Your task to perform on an android device: Is it going to rain today? Image 0: 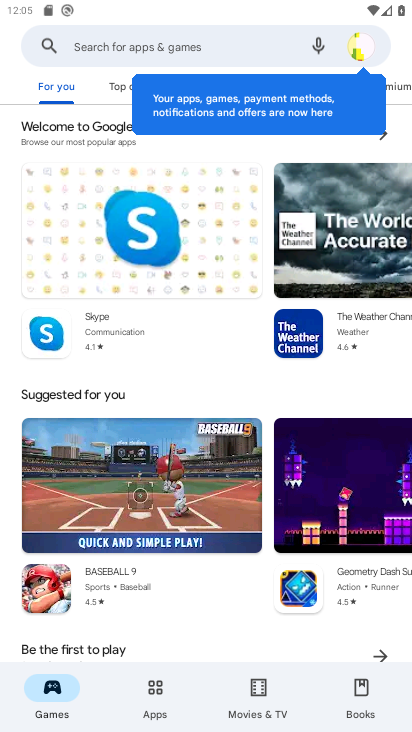
Step 0: press home button
Your task to perform on an android device: Is it going to rain today? Image 1: 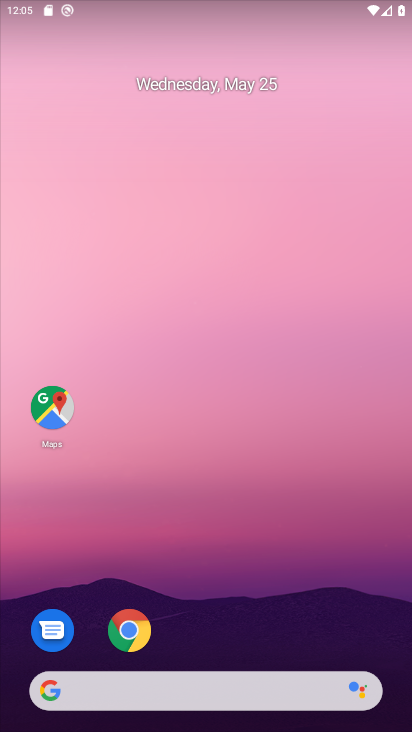
Step 1: drag from (191, 638) to (221, 195)
Your task to perform on an android device: Is it going to rain today? Image 2: 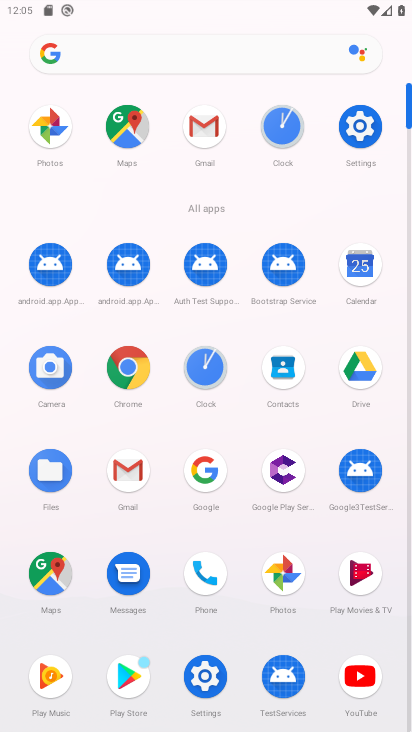
Step 2: click (200, 477)
Your task to perform on an android device: Is it going to rain today? Image 3: 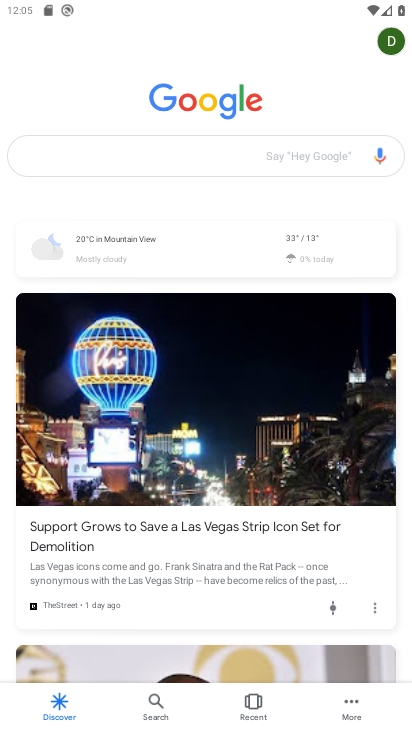
Step 3: click (176, 140)
Your task to perform on an android device: Is it going to rain today? Image 4: 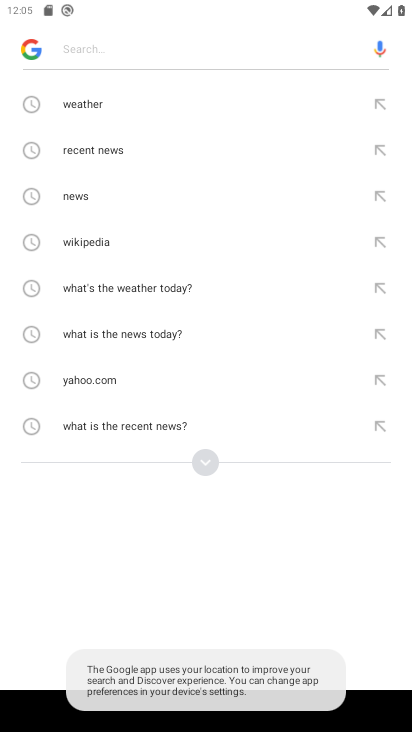
Step 4: press back button
Your task to perform on an android device: Is it going to rain today? Image 5: 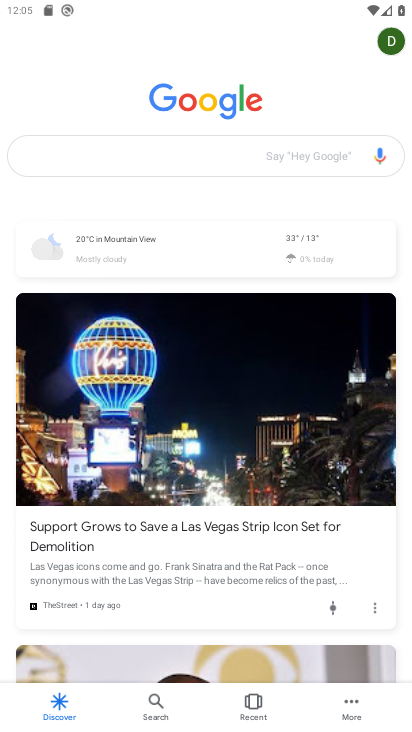
Step 5: click (118, 248)
Your task to perform on an android device: Is it going to rain today? Image 6: 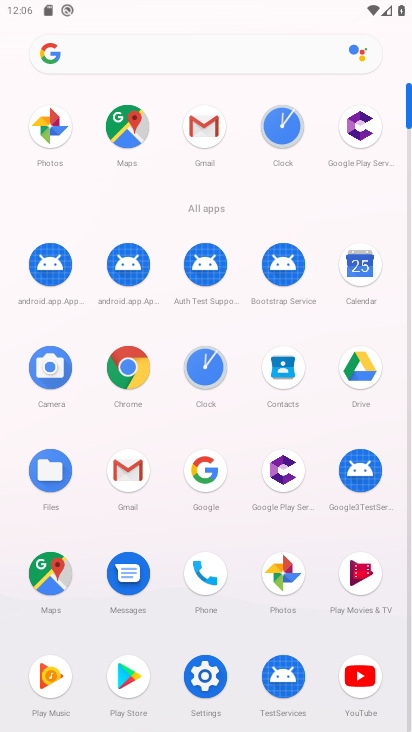
Step 6: click (196, 468)
Your task to perform on an android device: Is it going to rain today? Image 7: 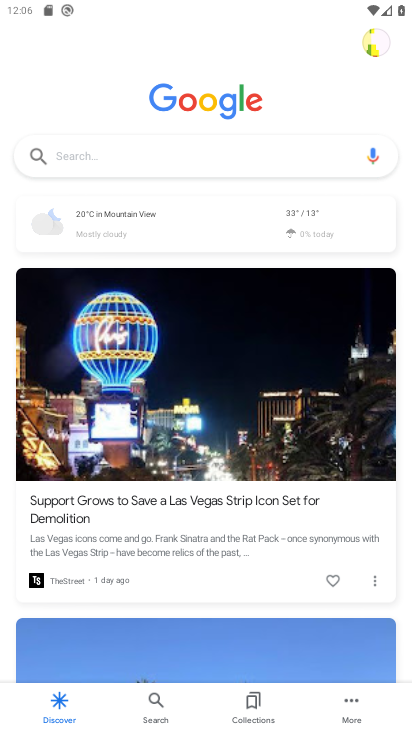
Step 7: click (150, 243)
Your task to perform on an android device: Is it going to rain today? Image 8: 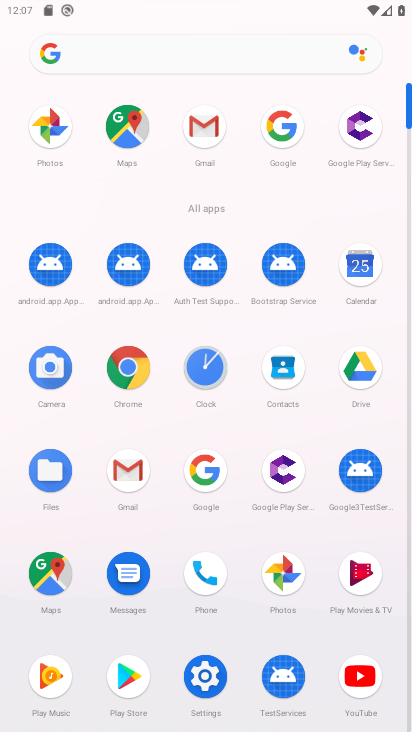
Step 8: click (197, 457)
Your task to perform on an android device: Is it going to rain today? Image 9: 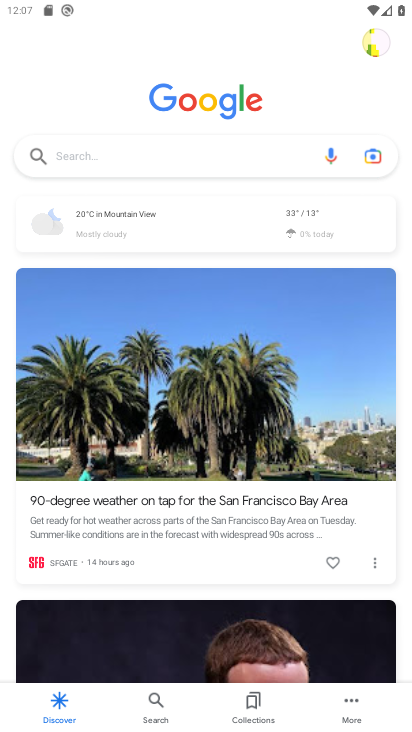
Step 9: click (125, 225)
Your task to perform on an android device: Is it going to rain today? Image 10: 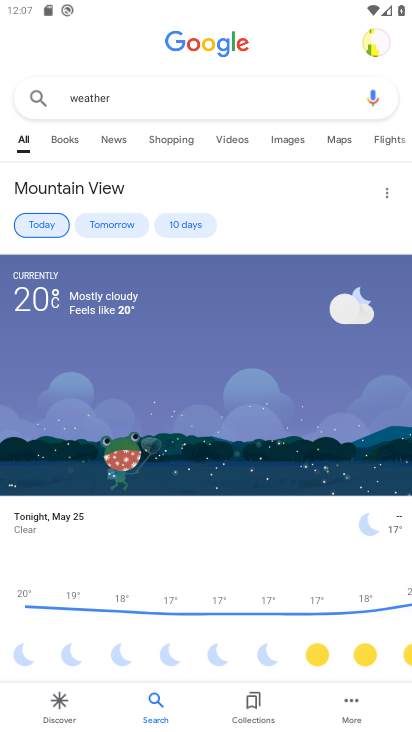
Step 10: task complete